Your task to perform on an android device: Open settings Image 0: 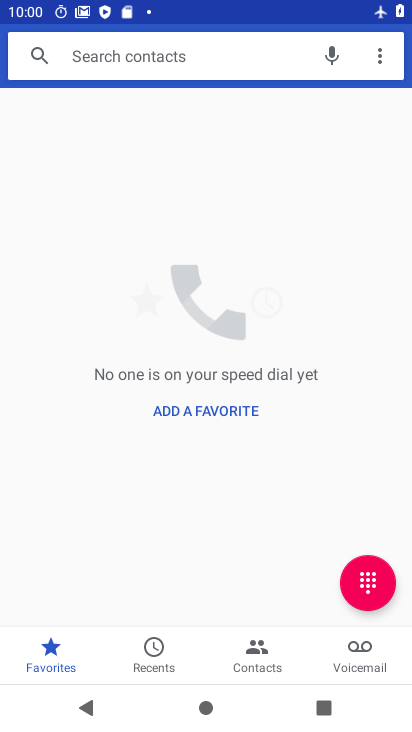
Step 0: press home button
Your task to perform on an android device: Open settings Image 1: 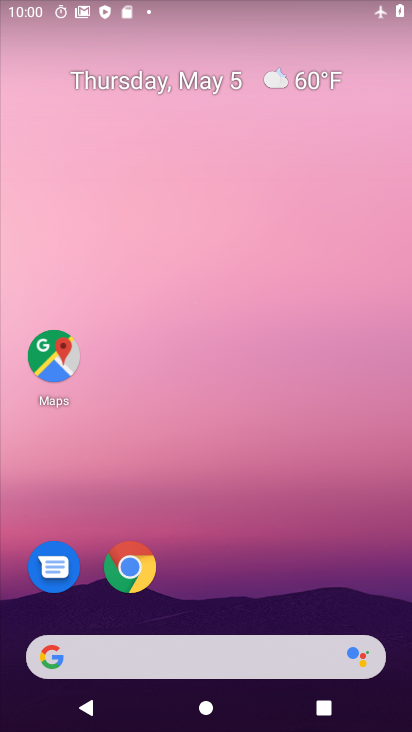
Step 1: drag from (317, 519) to (293, 52)
Your task to perform on an android device: Open settings Image 2: 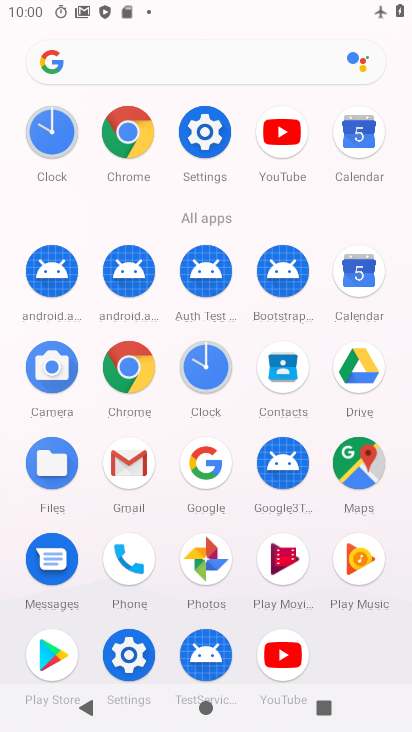
Step 2: click (208, 141)
Your task to perform on an android device: Open settings Image 3: 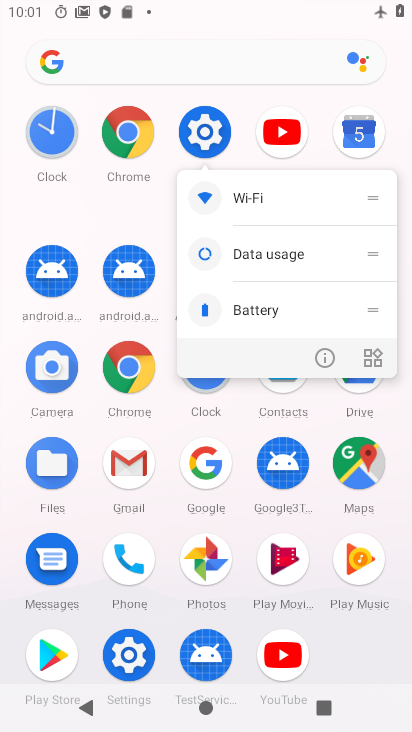
Step 3: click (207, 138)
Your task to perform on an android device: Open settings Image 4: 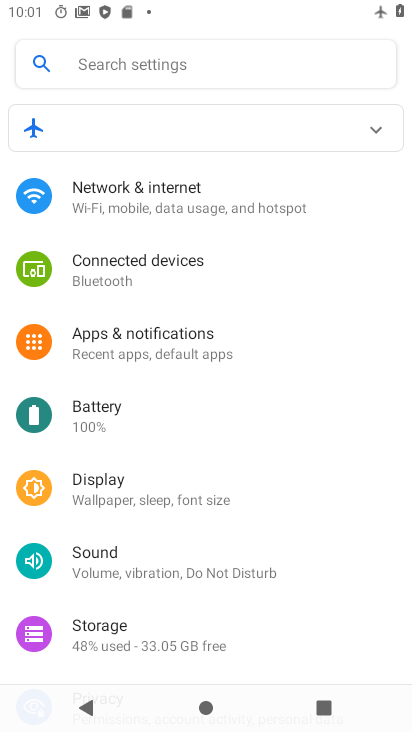
Step 4: task complete